Your task to perform on an android device: turn on bluetooth scan Image 0: 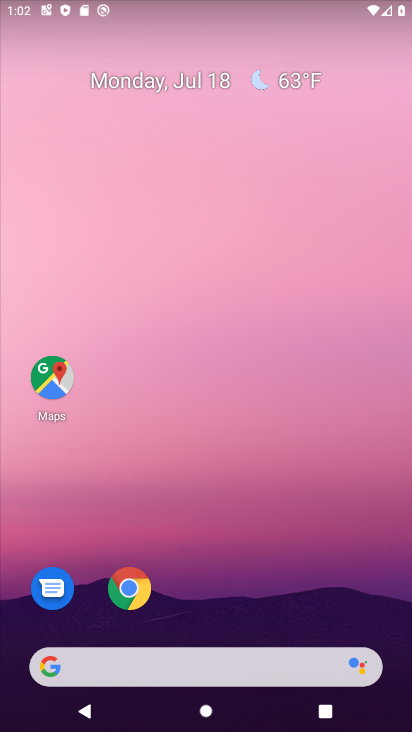
Step 0: drag from (206, 576) to (199, 287)
Your task to perform on an android device: turn on bluetooth scan Image 1: 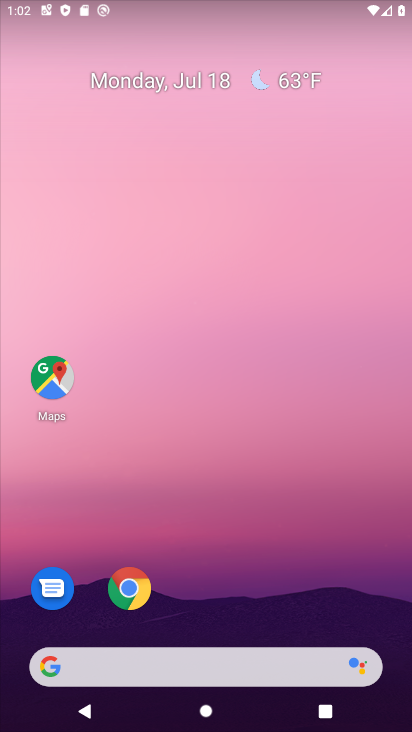
Step 1: drag from (220, 514) to (143, 2)
Your task to perform on an android device: turn on bluetooth scan Image 2: 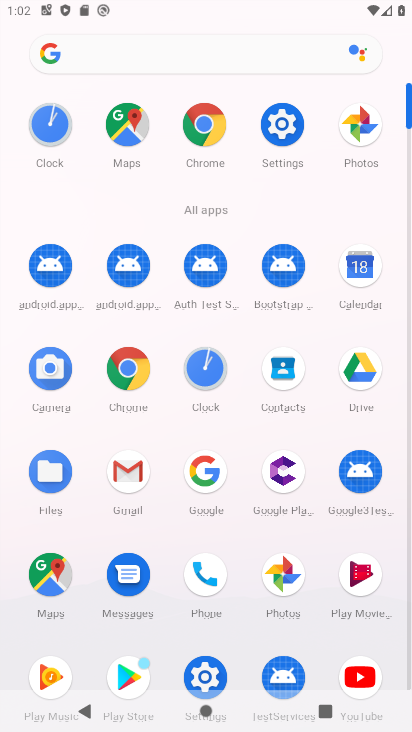
Step 2: click (276, 138)
Your task to perform on an android device: turn on bluetooth scan Image 3: 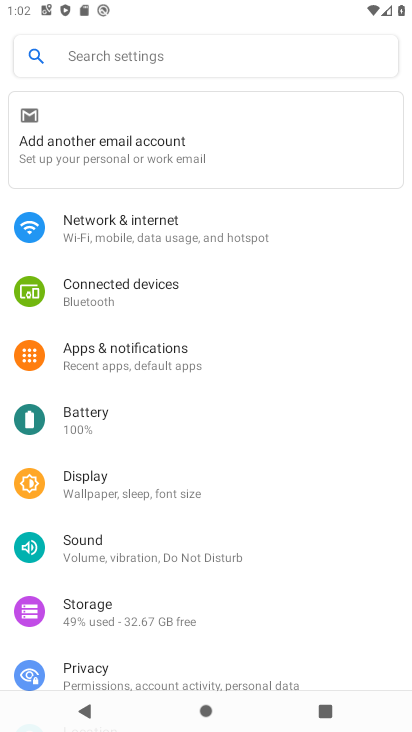
Step 3: drag from (193, 642) to (180, 381)
Your task to perform on an android device: turn on bluetooth scan Image 4: 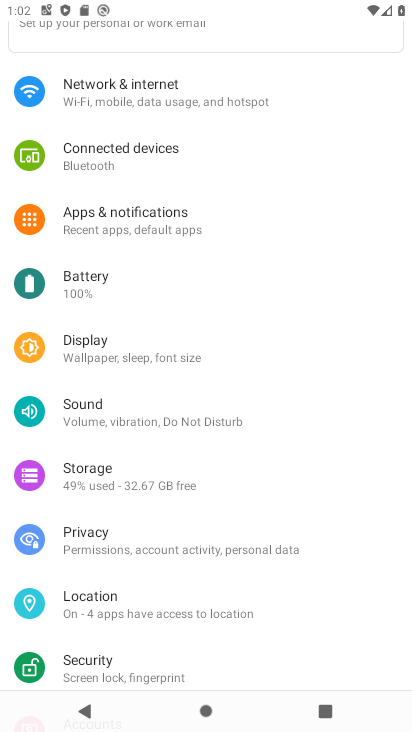
Step 4: click (95, 594)
Your task to perform on an android device: turn on bluetooth scan Image 5: 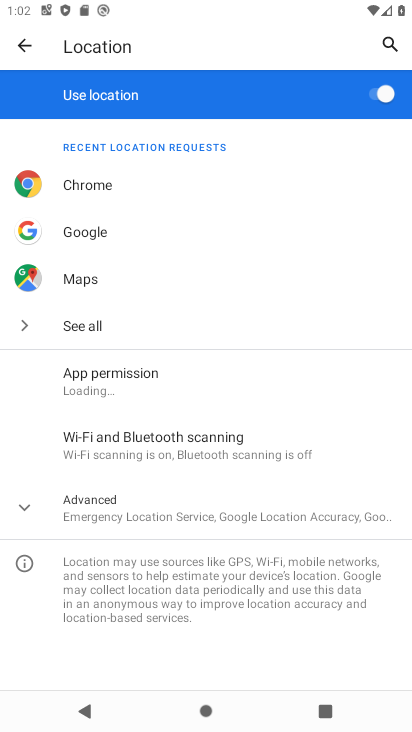
Step 5: click (156, 438)
Your task to perform on an android device: turn on bluetooth scan Image 6: 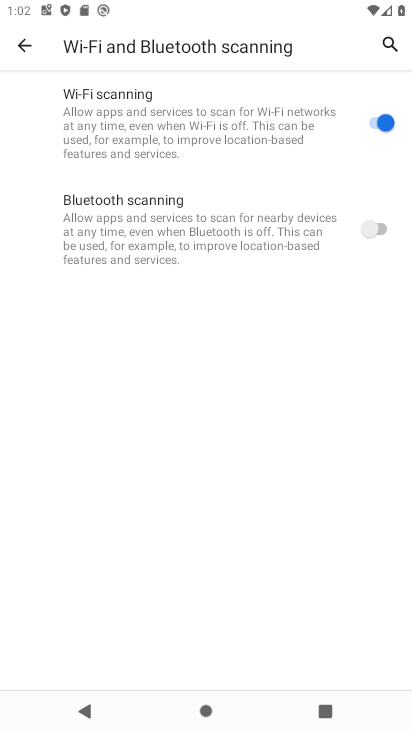
Step 6: click (367, 228)
Your task to perform on an android device: turn on bluetooth scan Image 7: 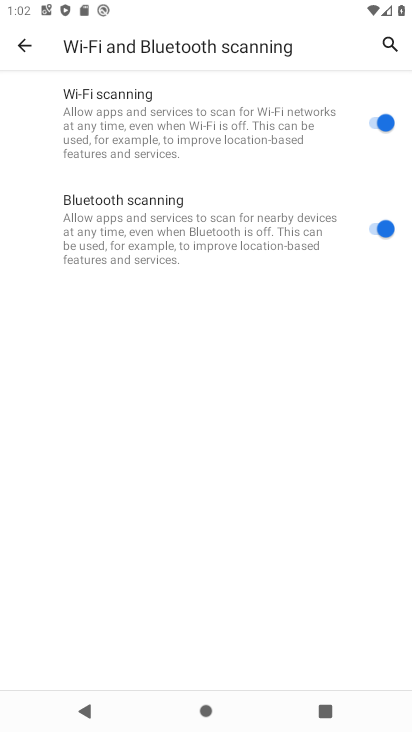
Step 7: task complete